Your task to perform on an android device: see tabs open on other devices in the chrome app Image 0: 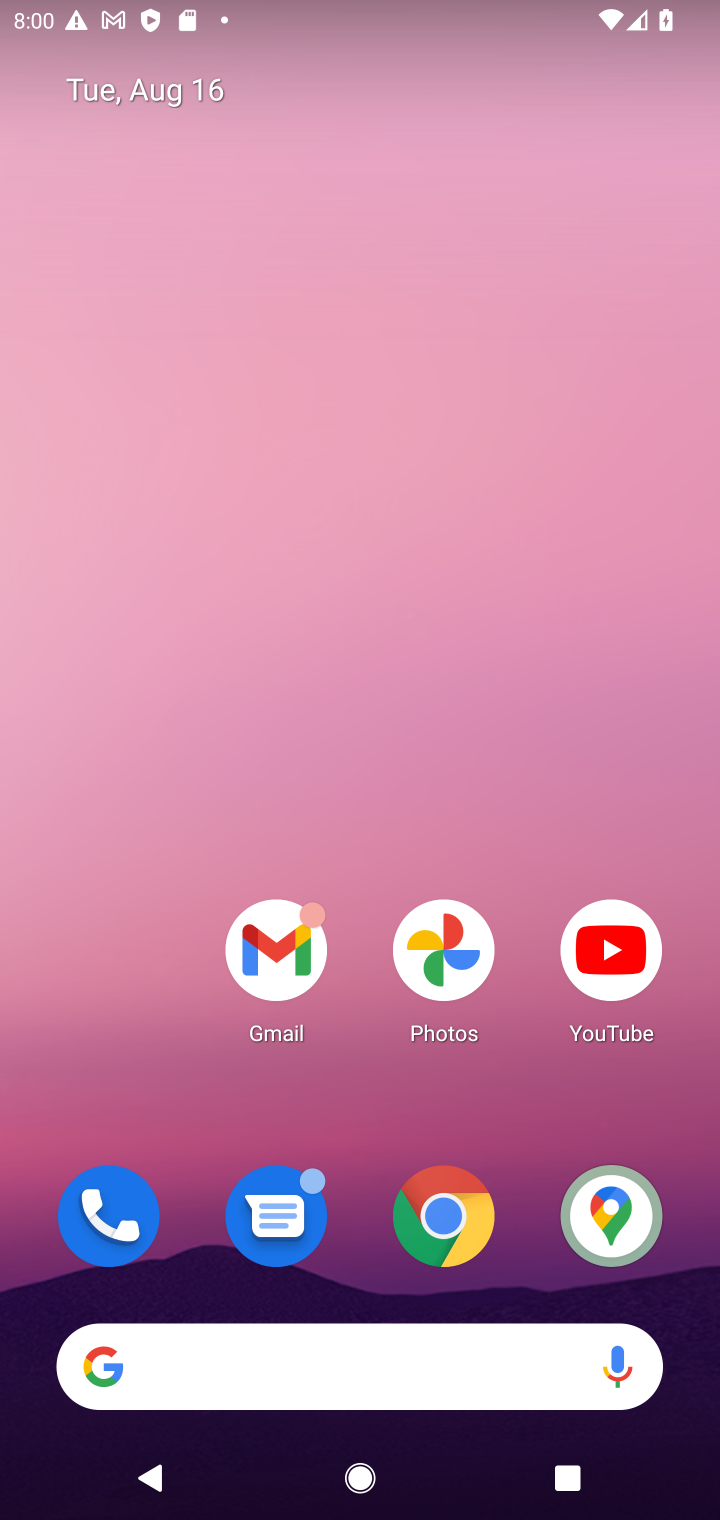
Step 0: drag from (394, 1106) to (286, 222)
Your task to perform on an android device: see tabs open on other devices in the chrome app Image 1: 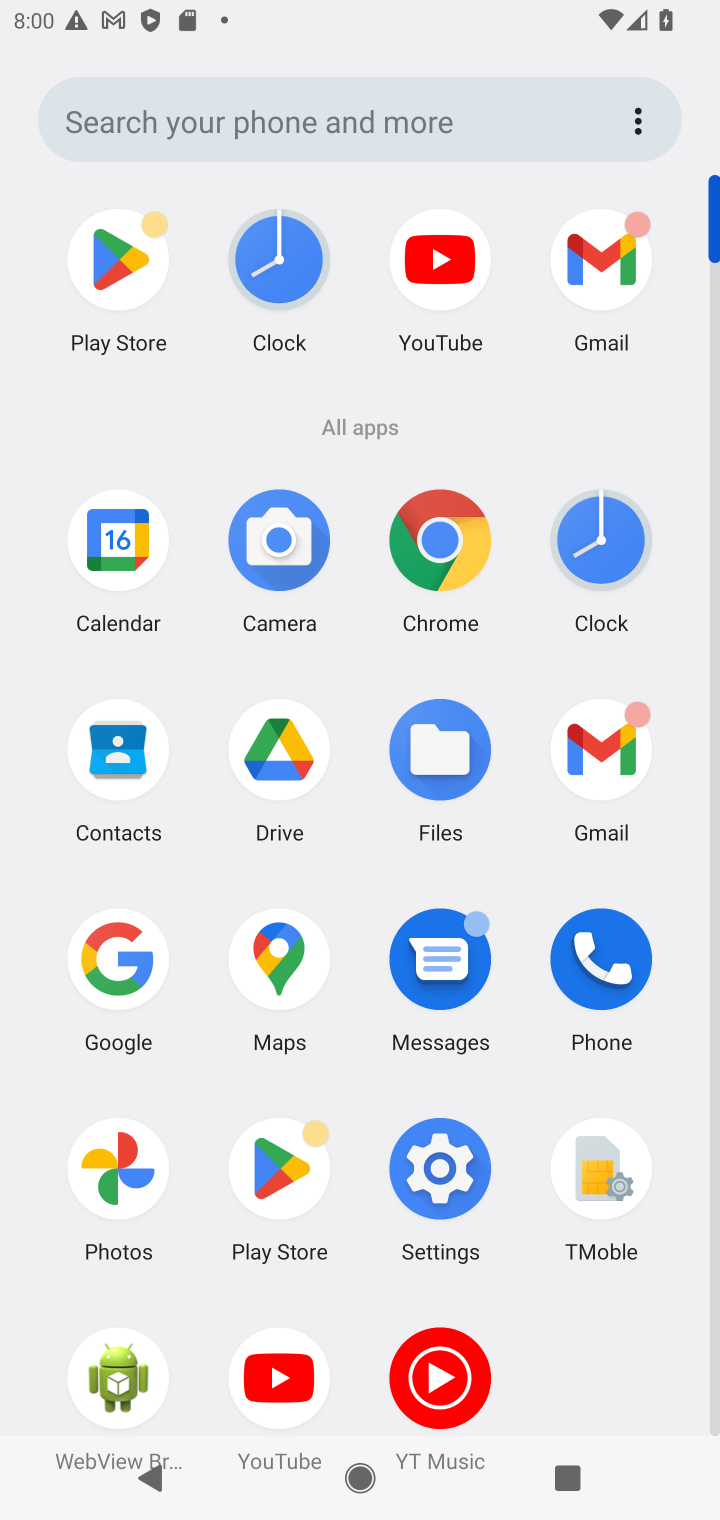
Step 1: click (410, 556)
Your task to perform on an android device: see tabs open on other devices in the chrome app Image 2: 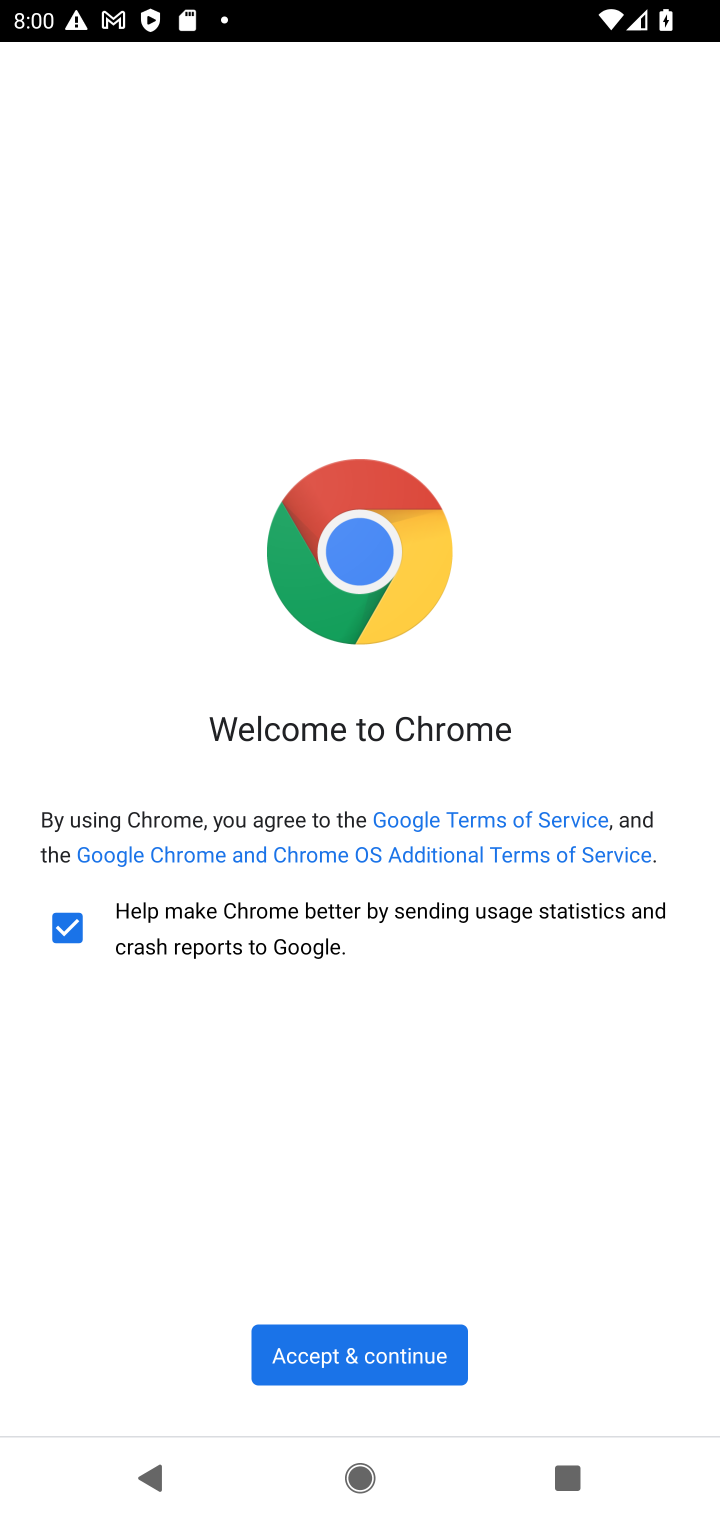
Step 2: click (322, 1344)
Your task to perform on an android device: see tabs open on other devices in the chrome app Image 3: 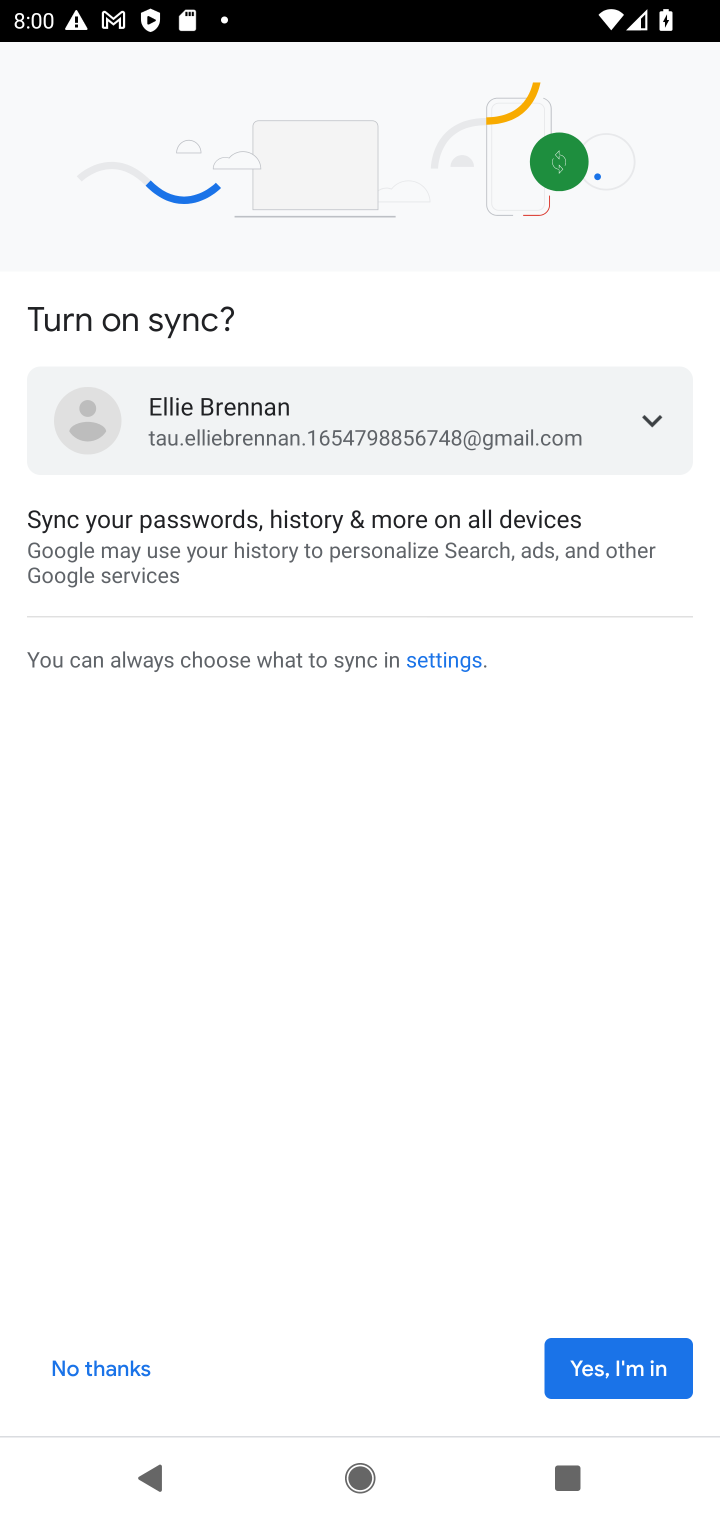
Step 3: click (643, 1362)
Your task to perform on an android device: see tabs open on other devices in the chrome app Image 4: 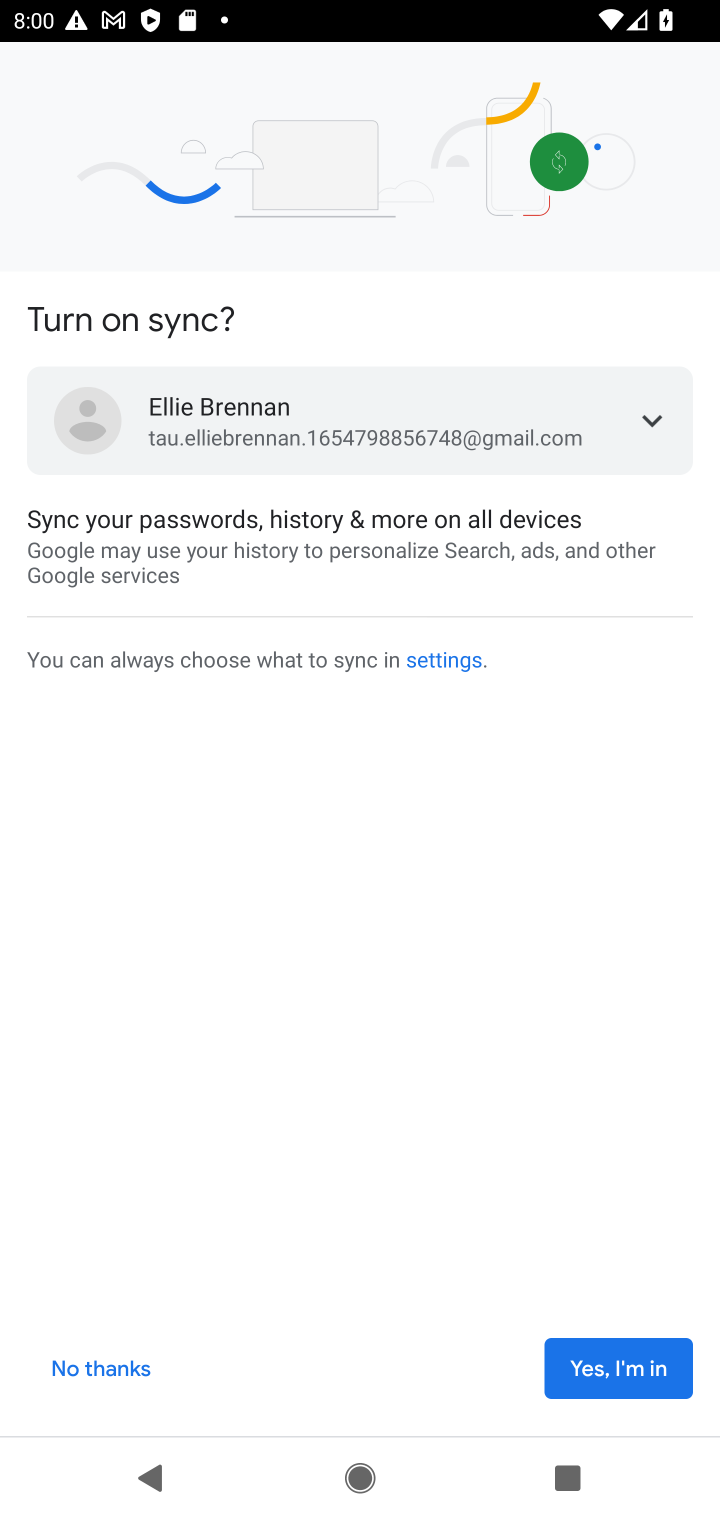
Step 4: click (633, 1353)
Your task to perform on an android device: see tabs open on other devices in the chrome app Image 5: 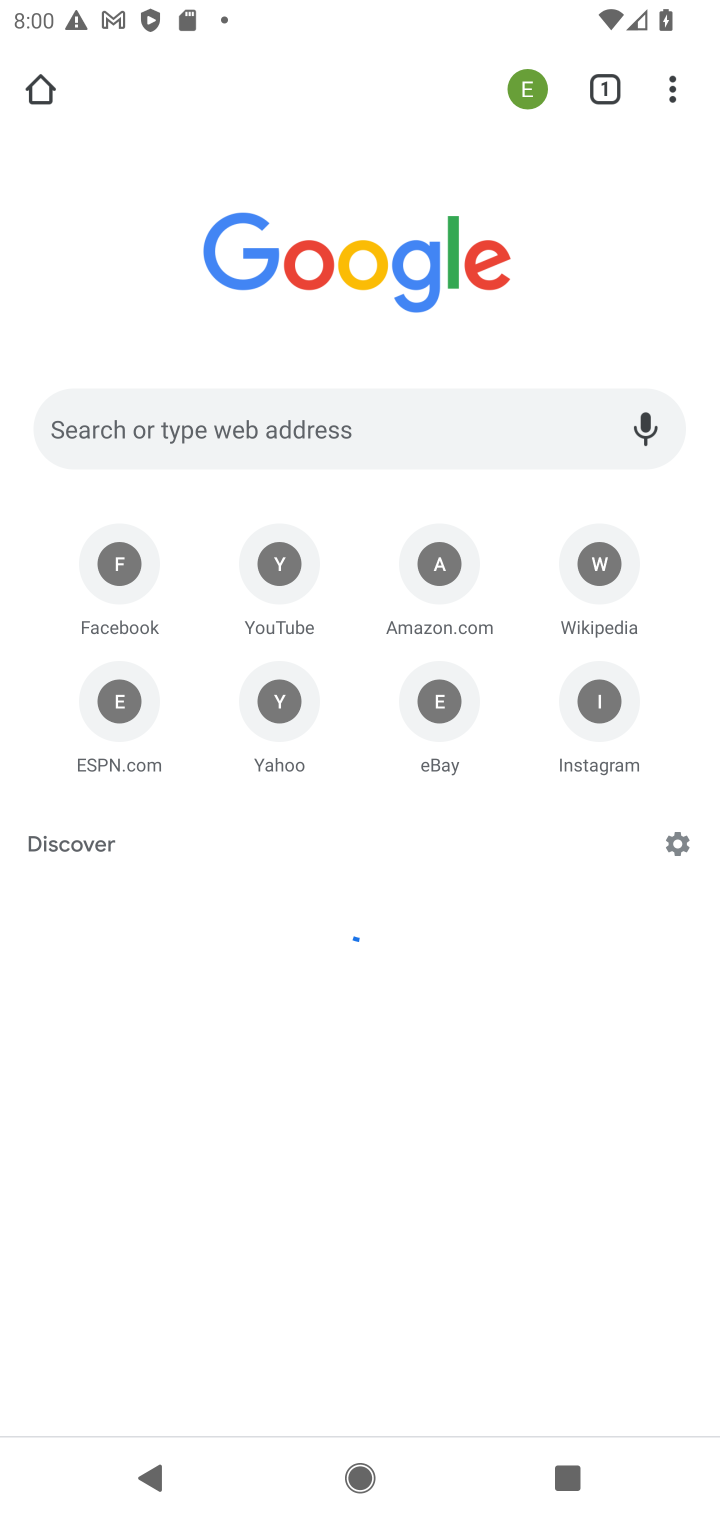
Step 5: click (671, 82)
Your task to perform on an android device: see tabs open on other devices in the chrome app Image 6: 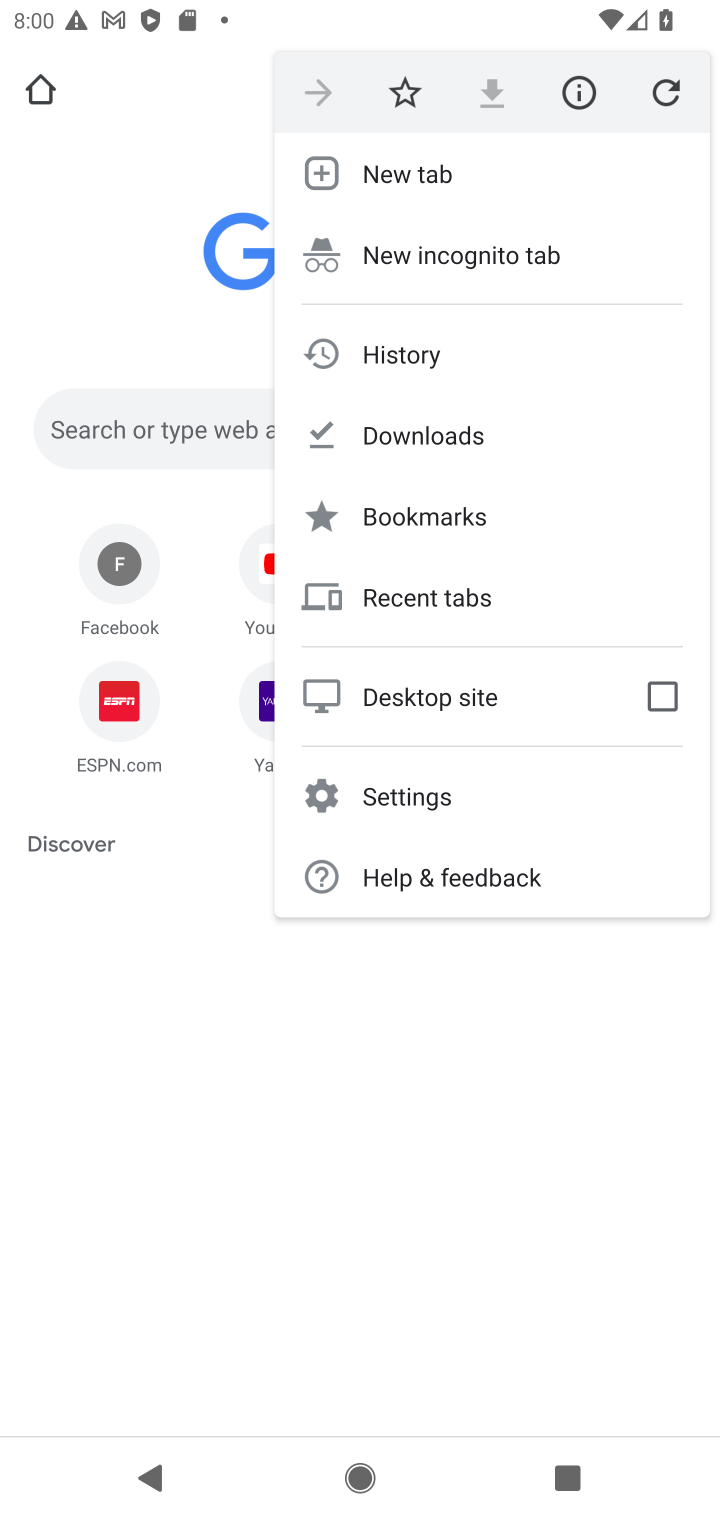
Step 6: click (377, 342)
Your task to perform on an android device: see tabs open on other devices in the chrome app Image 7: 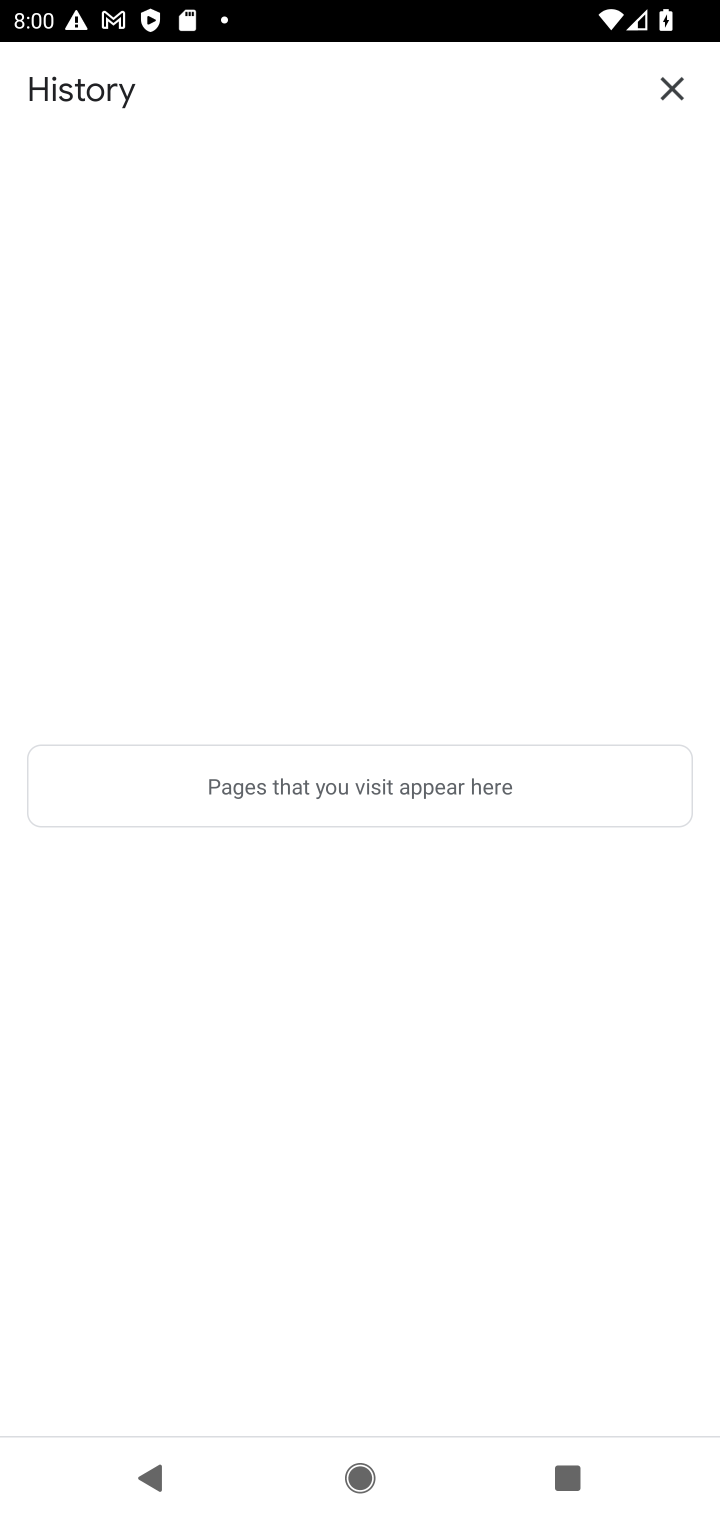
Step 7: task complete